Your task to perform on an android device: Open Maps and search for coffee Image 0: 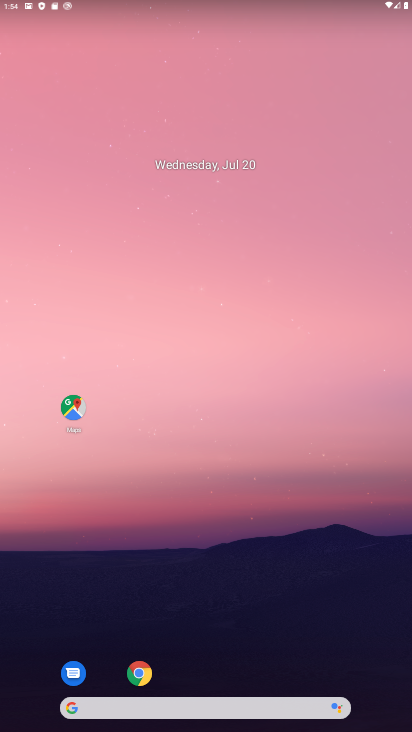
Step 0: click (208, 674)
Your task to perform on an android device: Open Maps and search for coffee Image 1: 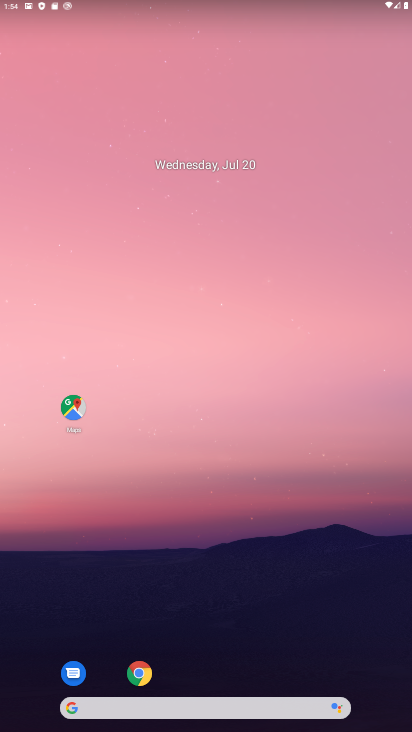
Step 1: click (73, 404)
Your task to perform on an android device: Open Maps and search for coffee Image 2: 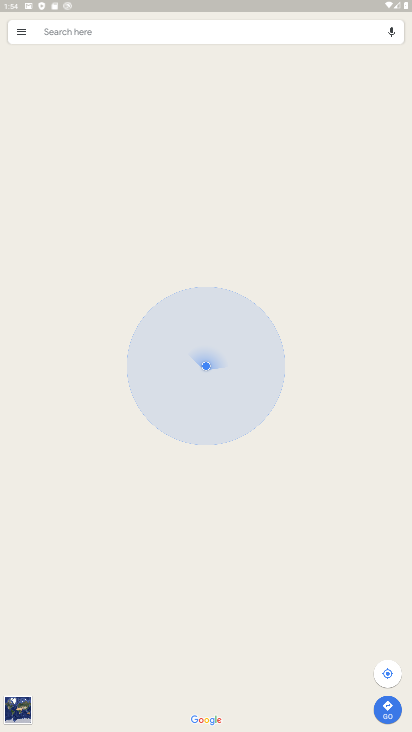
Step 2: click (171, 30)
Your task to perform on an android device: Open Maps and search for coffee Image 3: 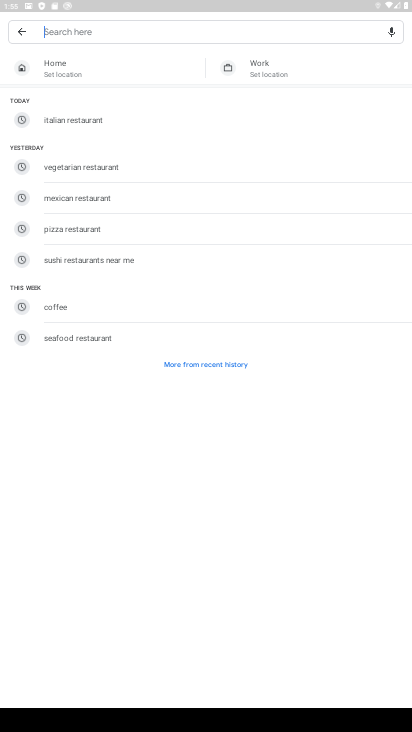
Step 3: type "coffee"
Your task to perform on an android device: Open Maps and search for coffee Image 4: 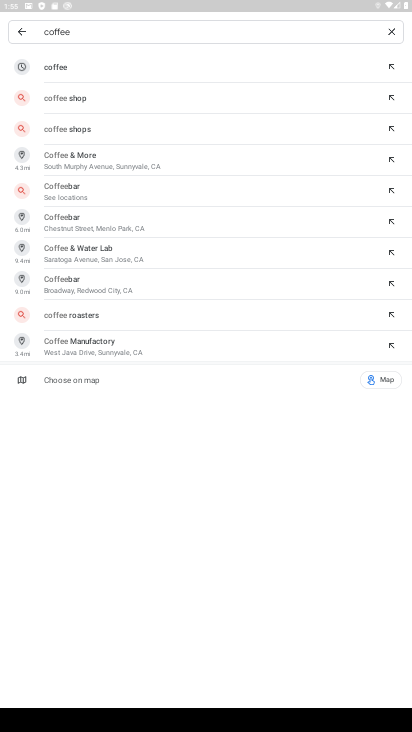
Step 4: click (91, 67)
Your task to perform on an android device: Open Maps and search for coffee Image 5: 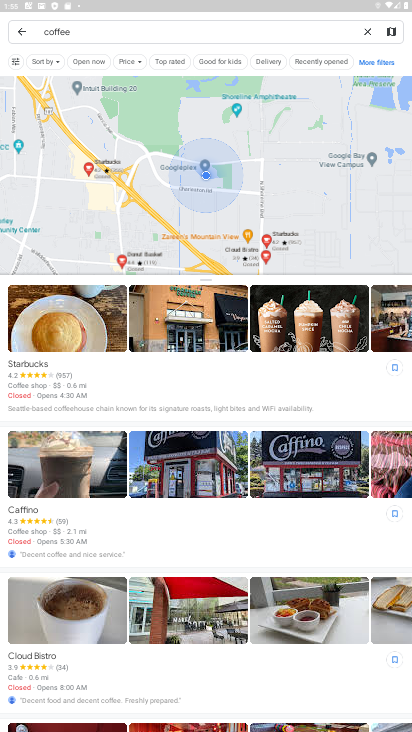
Step 5: task complete